Your task to perform on an android device: empty trash in google photos Image 0: 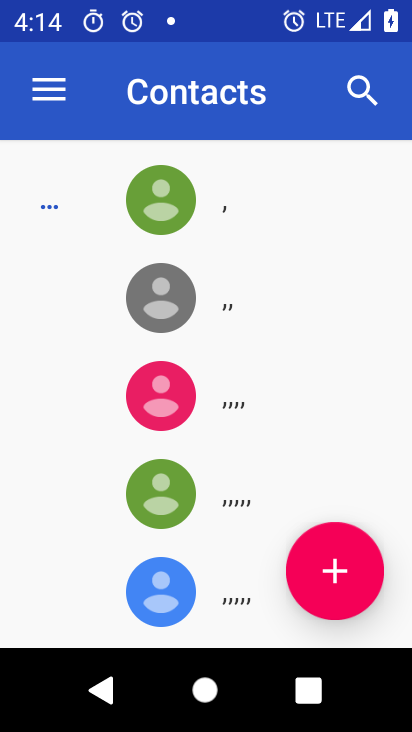
Step 0: press home button
Your task to perform on an android device: empty trash in google photos Image 1: 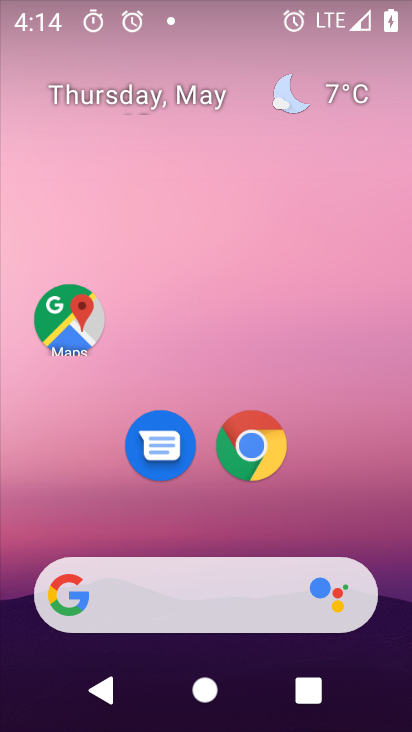
Step 1: drag from (357, 548) to (376, 26)
Your task to perform on an android device: empty trash in google photos Image 2: 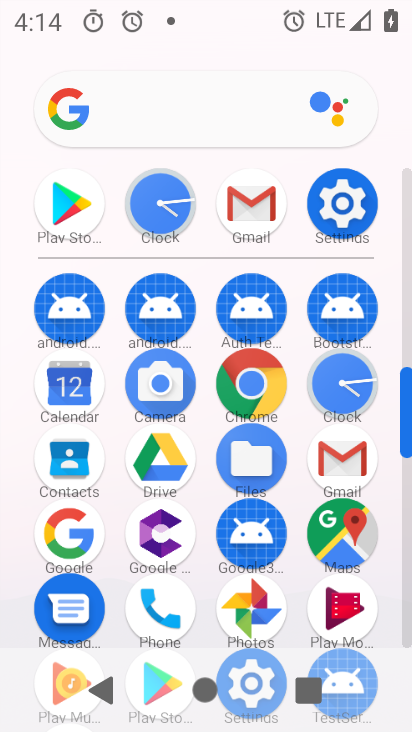
Step 2: click (251, 609)
Your task to perform on an android device: empty trash in google photos Image 3: 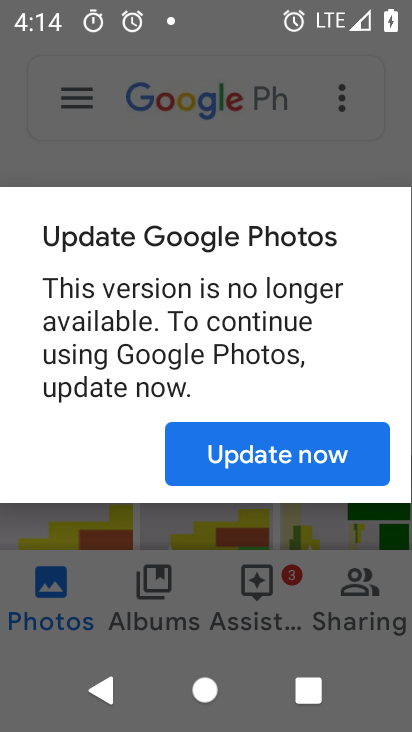
Step 3: click (288, 465)
Your task to perform on an android device: empty trash in google photos Image 4: 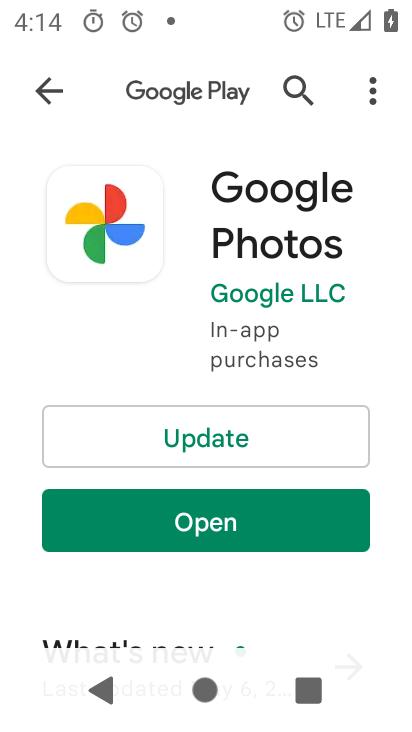
Step 4: click (225, 515)
Your task to perform on an android device: empty trash in google photos Image 5: 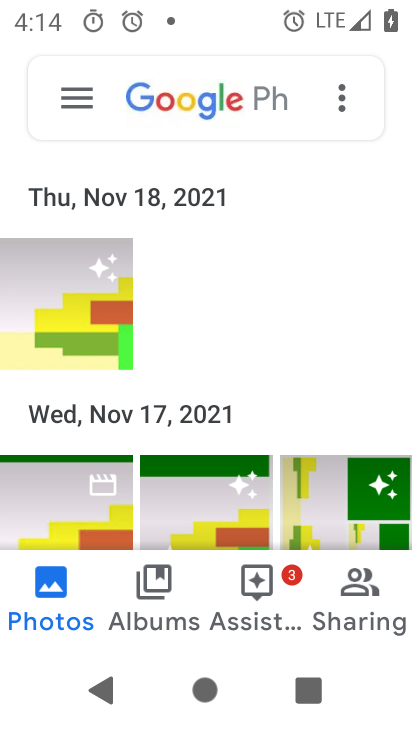
Step 5: click (75, 98)
Your task to perform on an android device: empty trash in google photos Image 6: 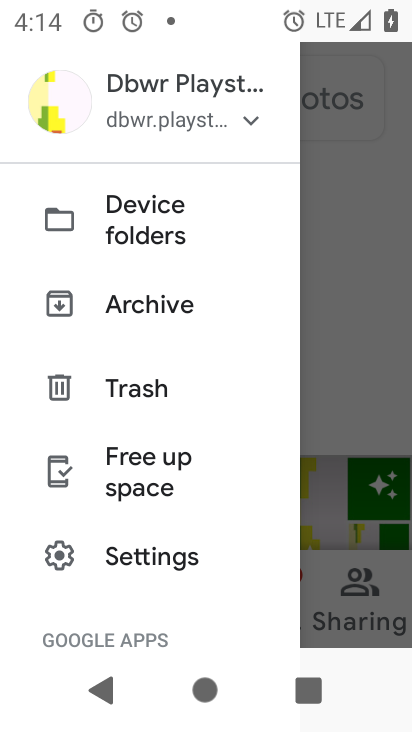
Step 6: click (122, 385)
Your task to perform on an android device: empty trash in google photos Image 7: 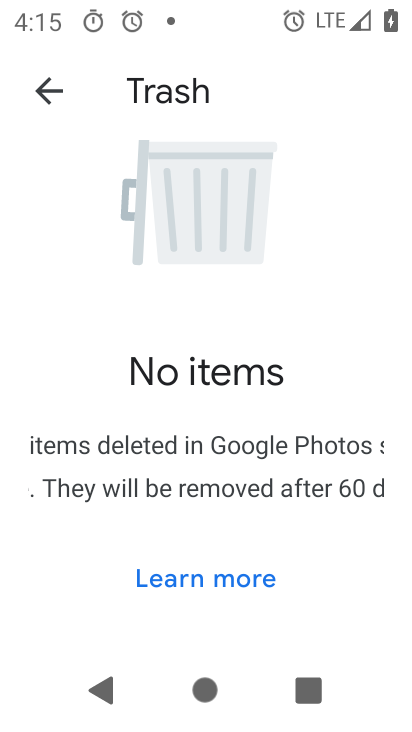
Step 7: task complete